Your task to perform on an android device: Open maps Image 0: 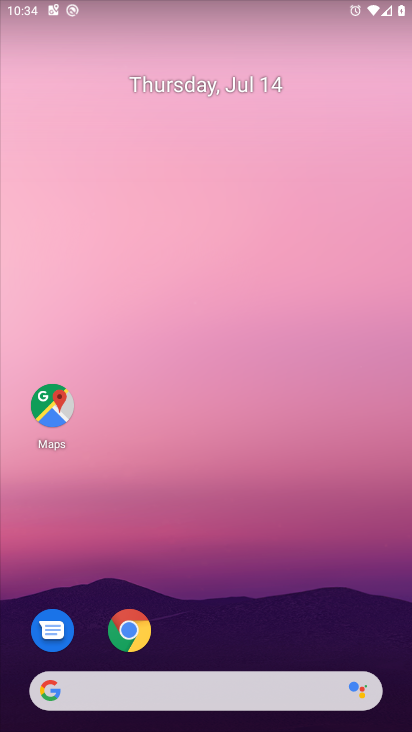
Step 0: click (65, 402)
Your task to perform on an android device: Open maps Image 1: 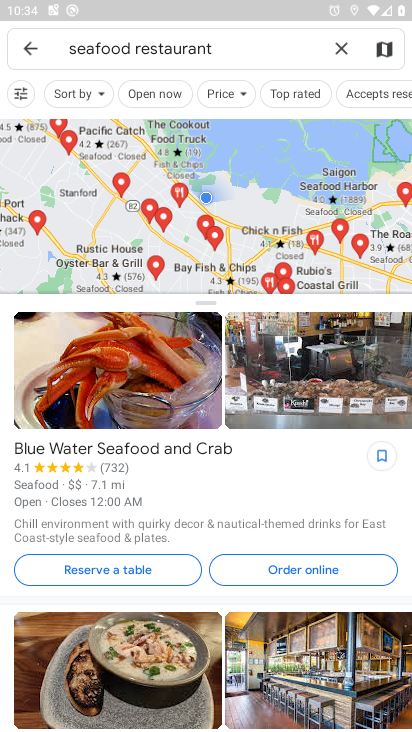
Step 1: press home button
Your task to perform on an android device: Open maps Image 2: 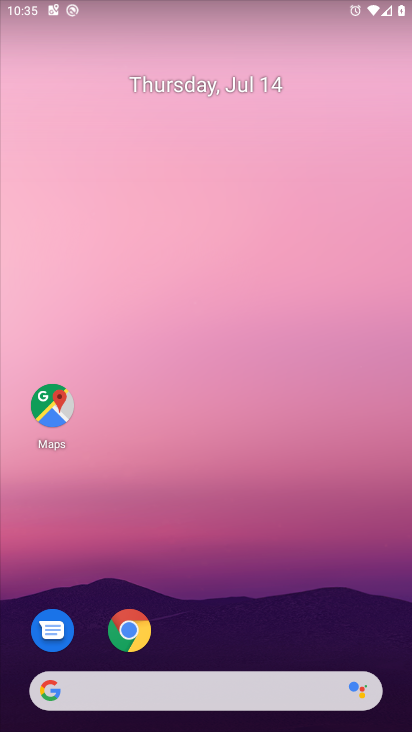
Step 2: click (70, 412)
Your task to perform on an android device: Open maps Image 3: 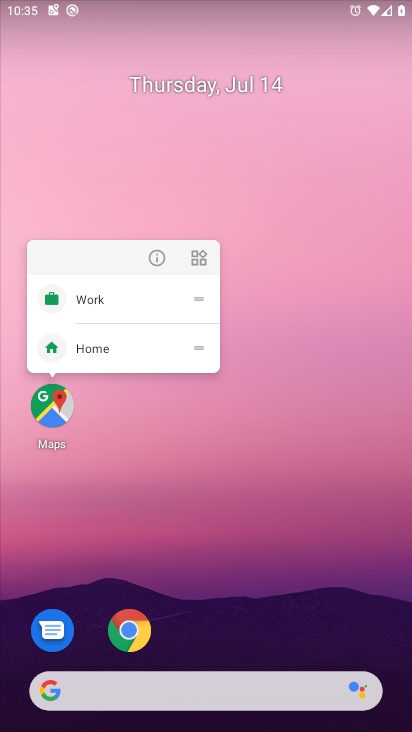
Step 3: click (44, 416)
Your task to perform on an android device: Open maps Image 4: 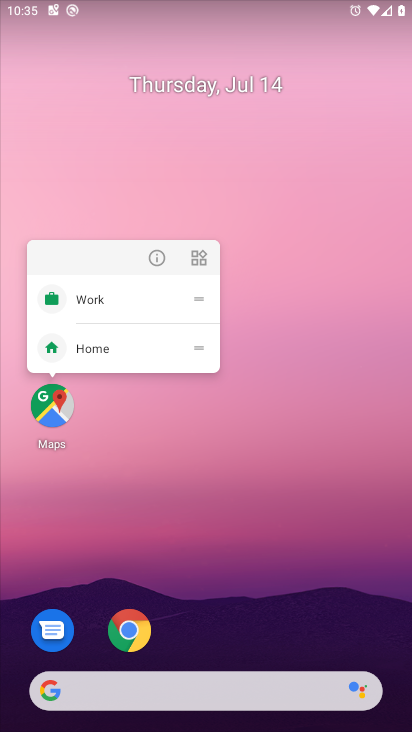
Step 4: task complete